Your task to perform on an android device: set the timer Image 0: 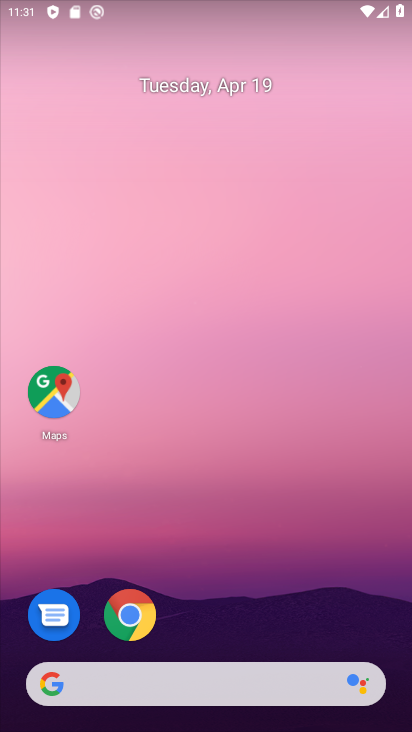
Step 0: drag from (222, 396) to (218, 92)
Your task to perform on an android device: set the timer Image 1: 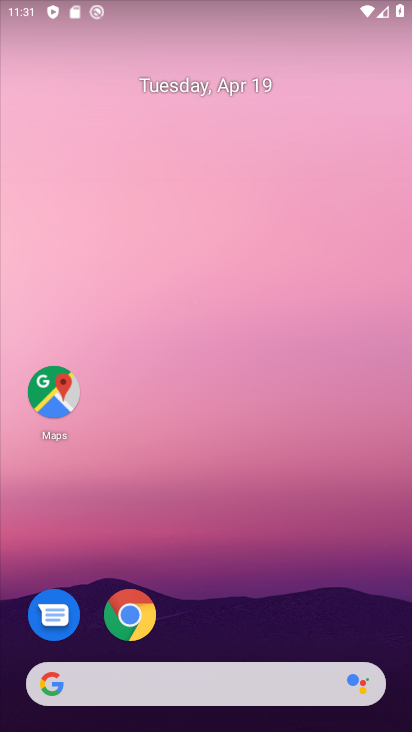
Step 1: drag from (236, 562) to (222, 89)
Your task to perform on an android device: set the timer Image 2: 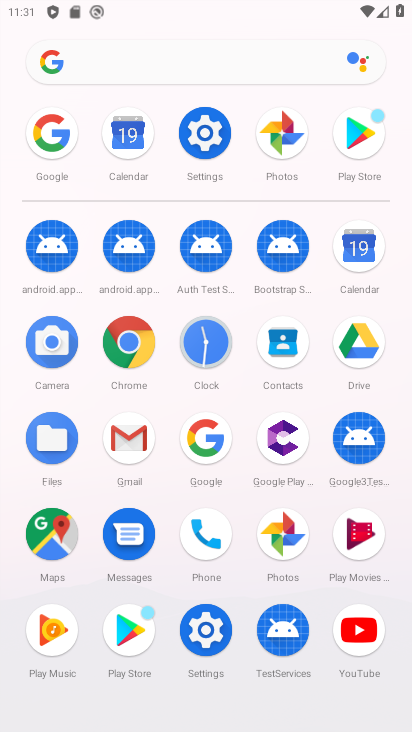
Step 2: click (206, 346)
Your task to perform on an android device: set the timer Image 3: 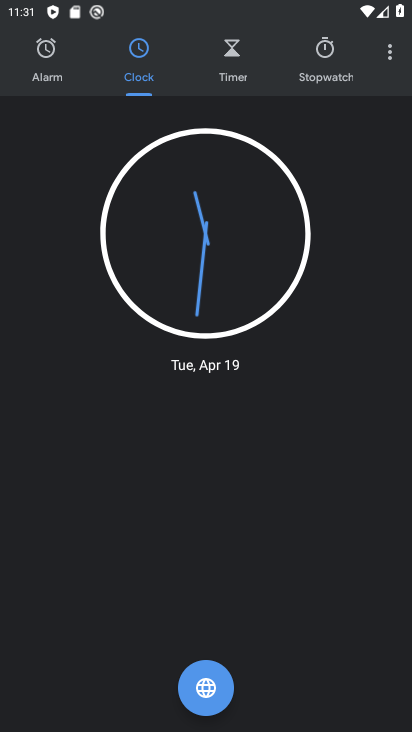
Step 3: click (225, 62)
Your task to perform on an android device: set the timer Image 4: 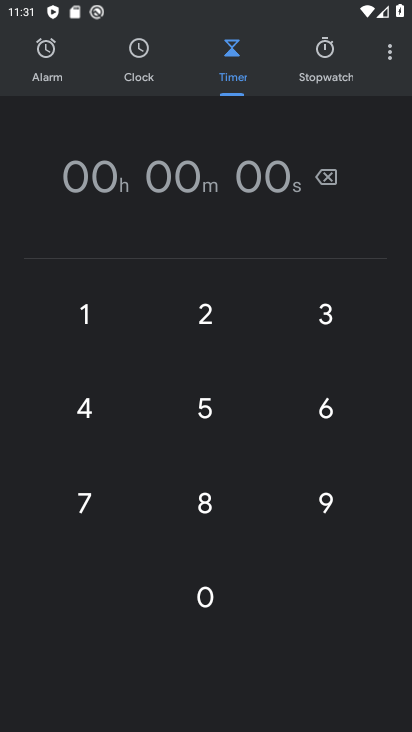
Step 4: click (212, 325)
Your task to perform on an android device: set the timer Image 5: 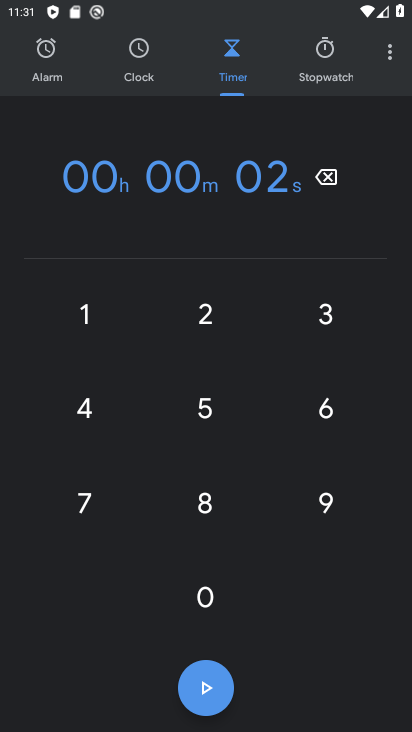
Step 5: click (206, 318)
Your task to perform on an android device: set the timer Image 6: 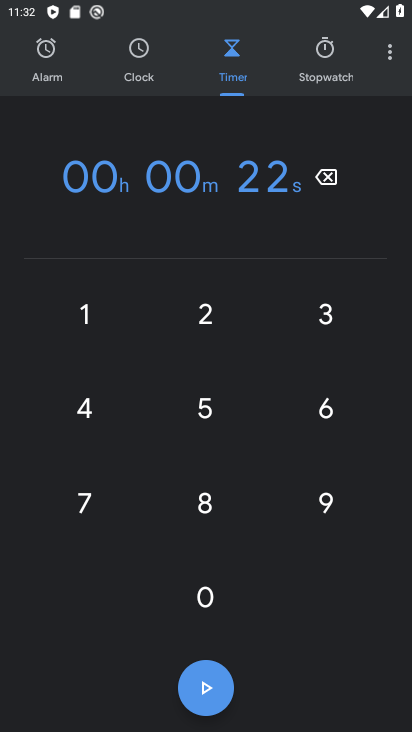
Step 6: task complete